Your task to perform on an android device: What is the news today? Image 0: 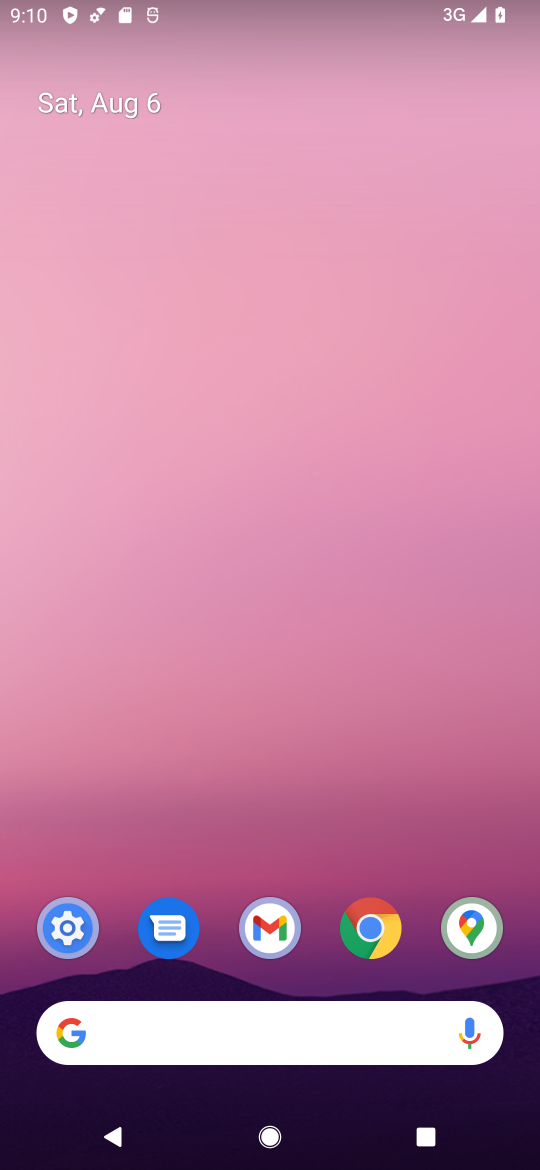
Step 0: click (455, 725)
Your task to perform on an android device: What is the news today? Image 1: 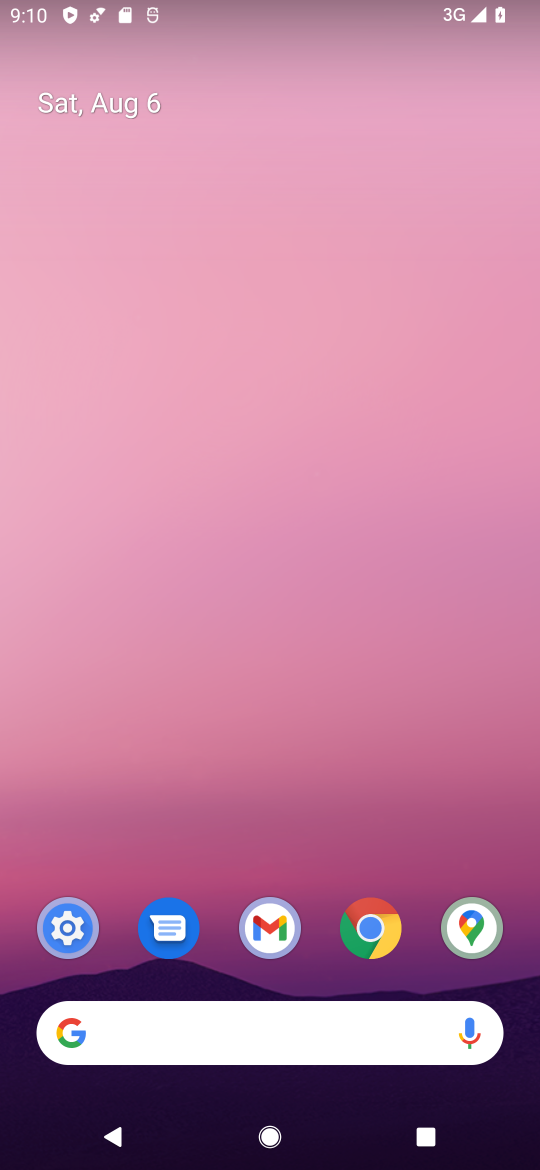
Step 1: click (242, 1021)
Your task to perform on an android device: What is the news today? Image 2: 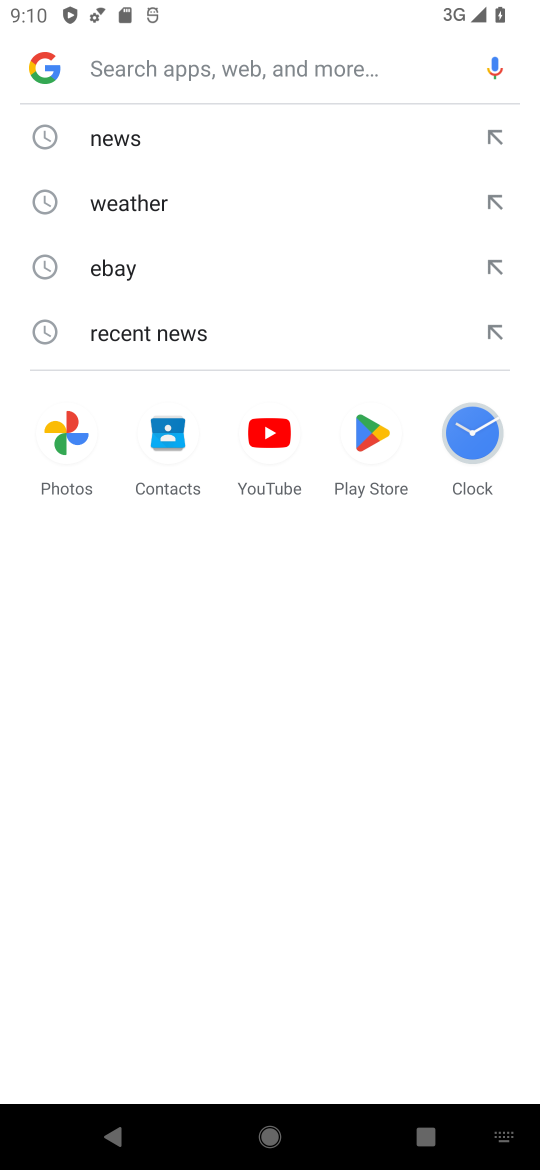
Step 2: click (35, 61)
Your task to perform on an android device: What is the news today? Image 3: 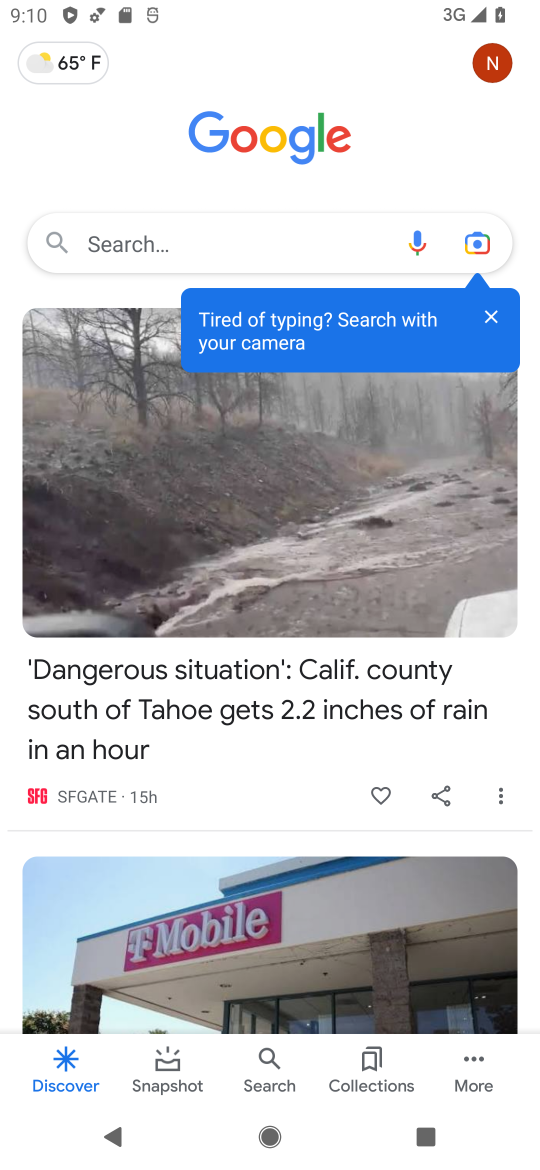
Step 3: task complete